Your task to perform on an android device: Open the web browser Image 0: 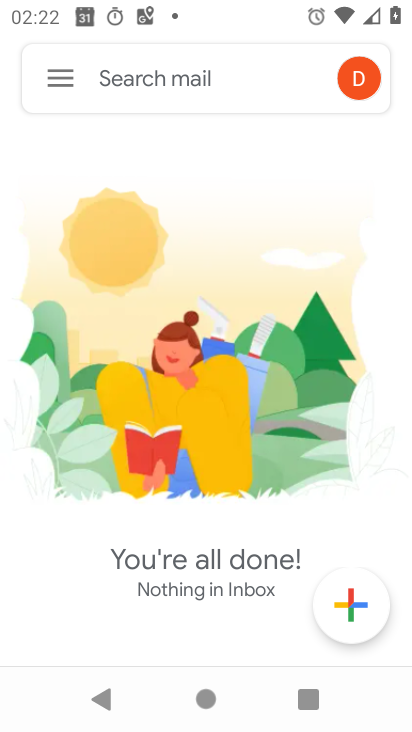
Step 0: press home button
Your task to perform on an android device: Open the web browser Image 1: 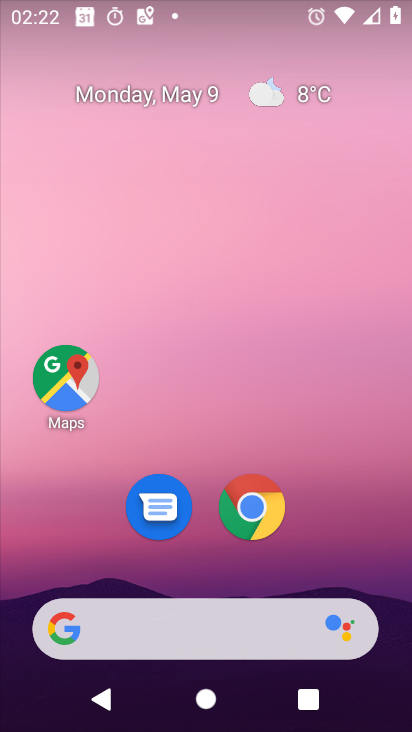
Step 1: click (256, 502)
Your task to perform on an android device: Open the web browser Image 2: 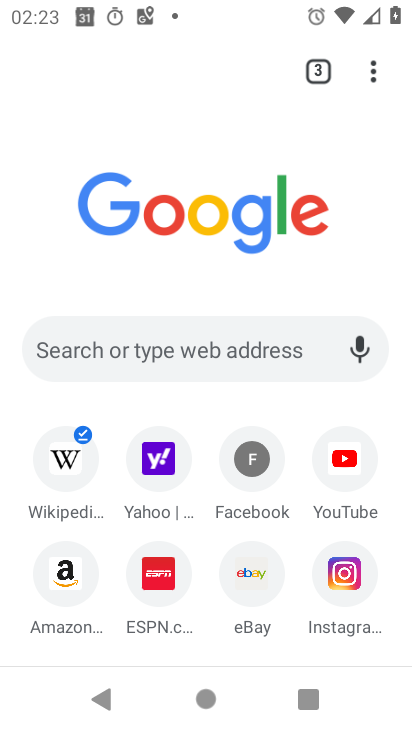
Step 2: task complete